Your task to perform on an android device: Open sound settings Image 0: 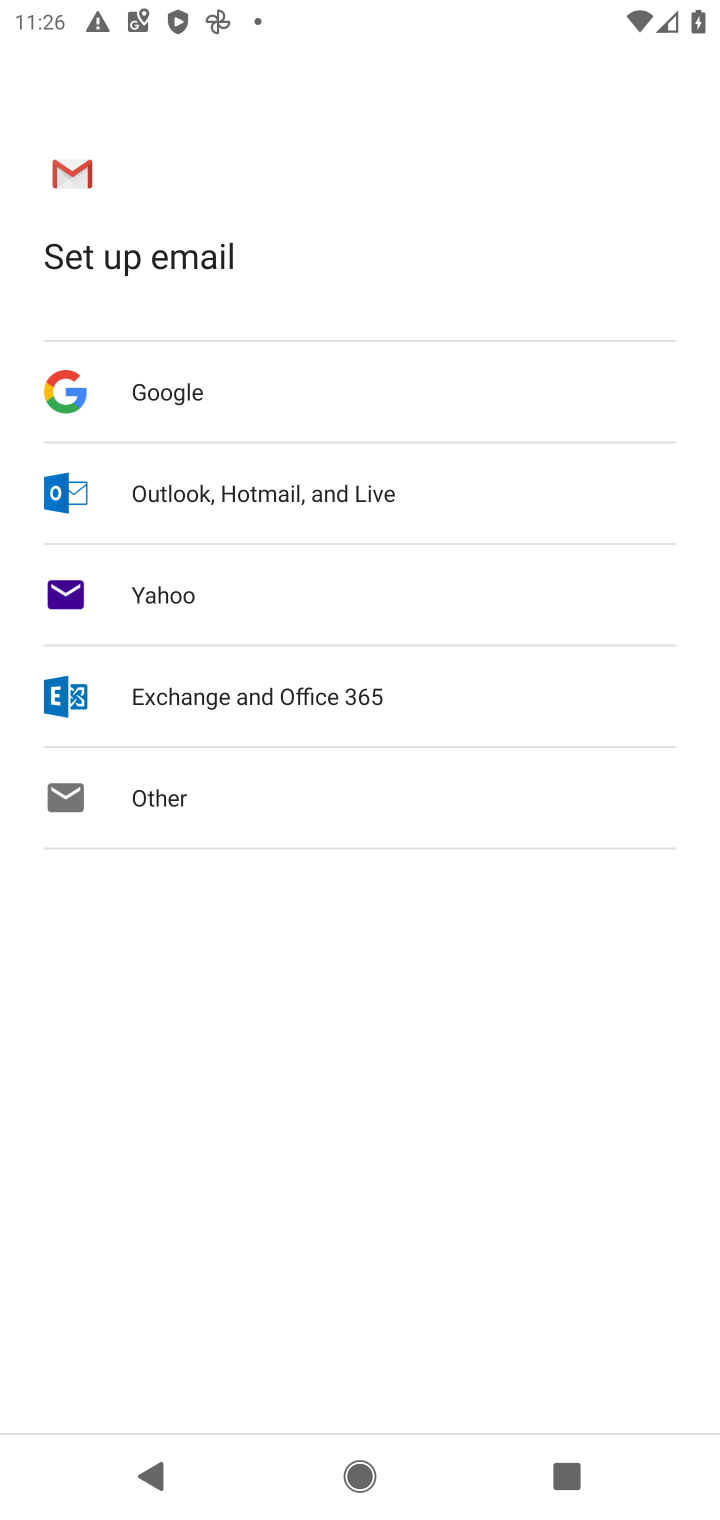
Step 0: press home button
Your task to perform on an android device: Open sound settings Image 1: 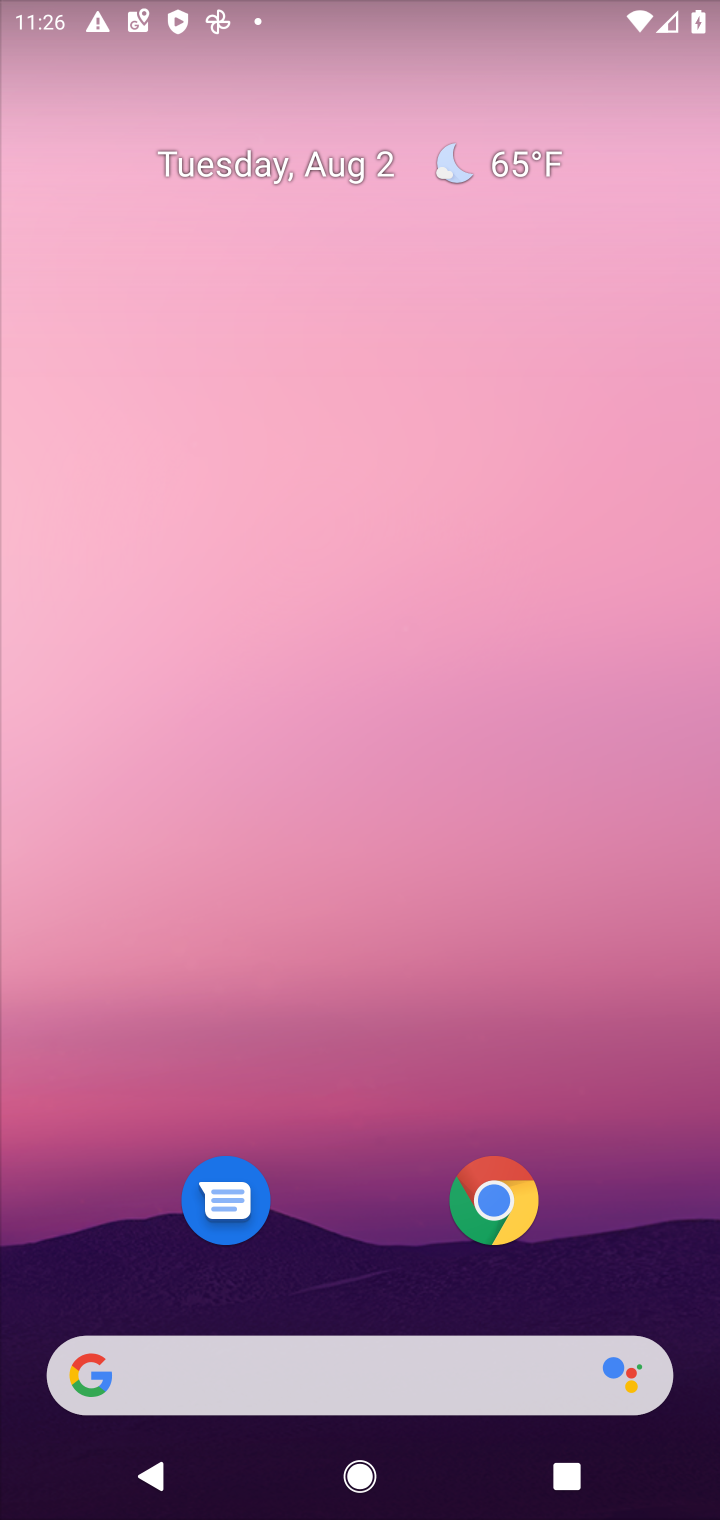
Step 1: drag from (653, 1209) to (622, 186)
Your task to perform on an android device: Open sound settings Image 2: 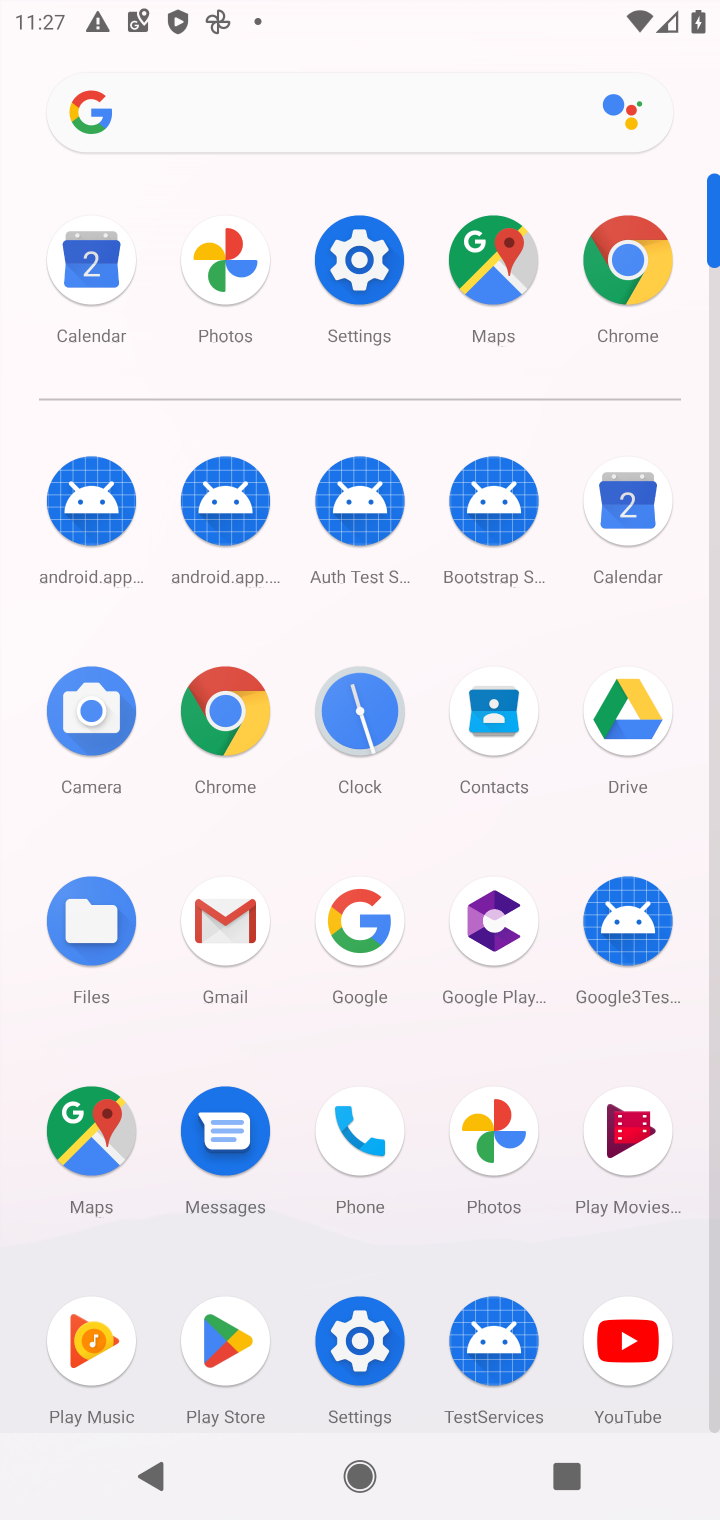
Step 2: click (359, 1343)
Your task to perform on an android device: Open sound settings Image 3: 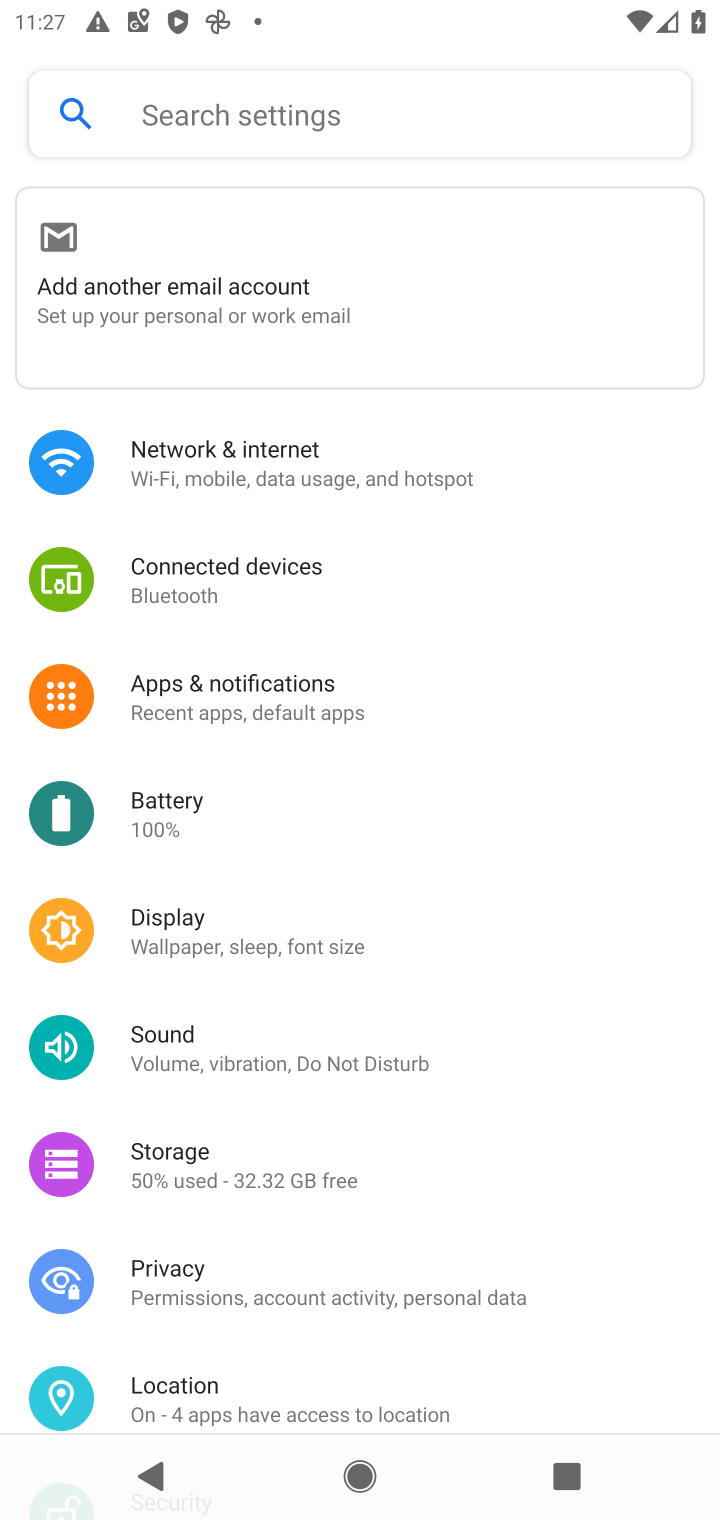
Step 3: click (159, 1050)
Your task to perform on an android device: Open sound settings Image 4: 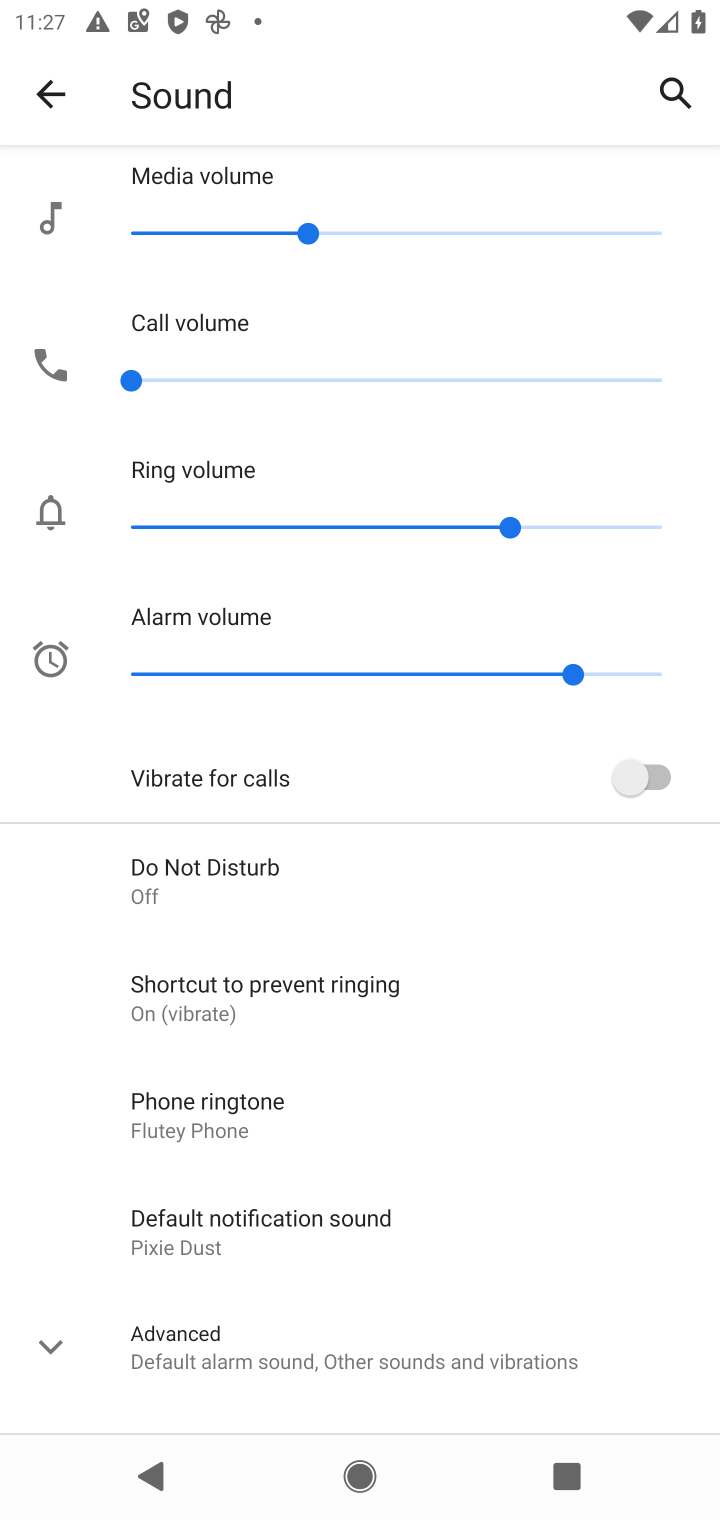
Step 4: click (48, 1341)
Your task to perform on an android device: Open sound settings Image 5: 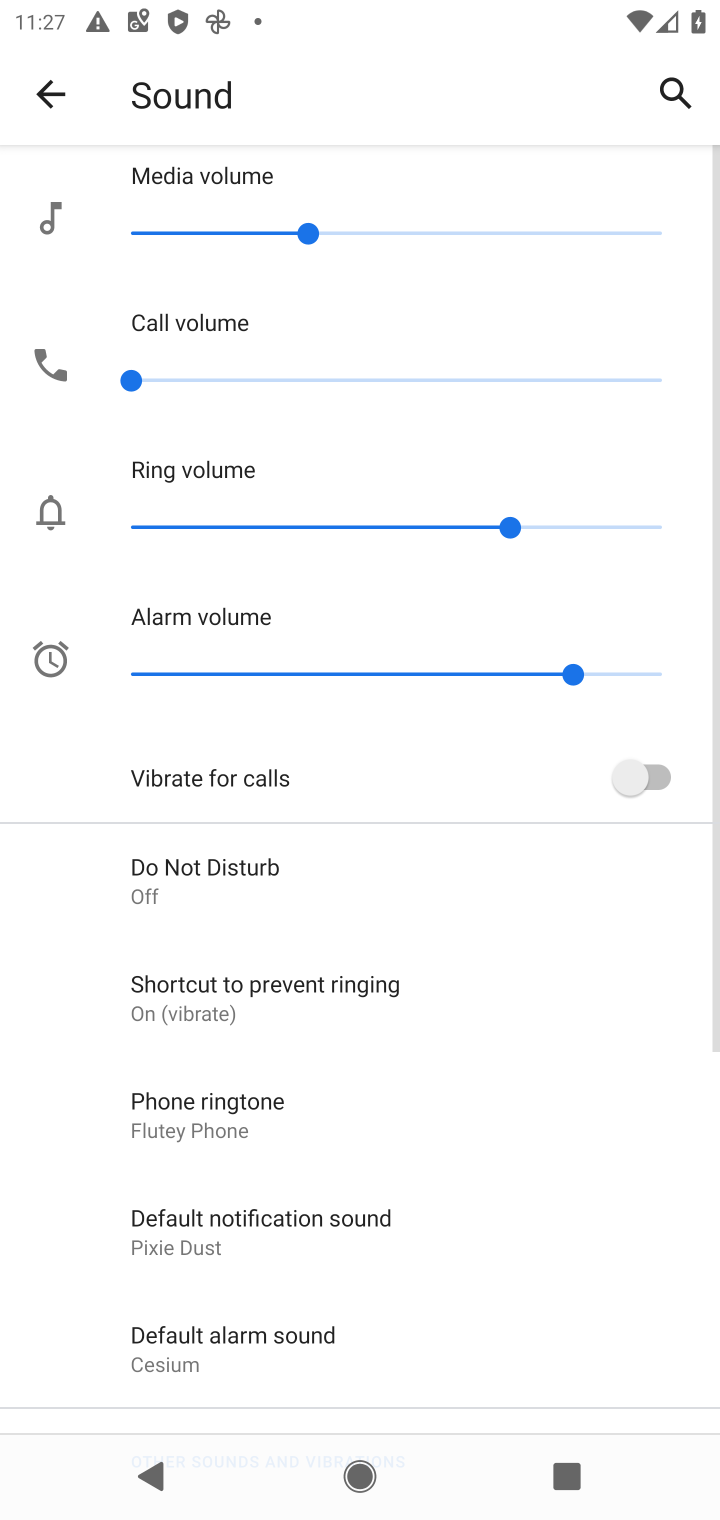
Step 5: task complete